Your task to perform on an android device: Set the phone to "Do not disturb". Image 0: 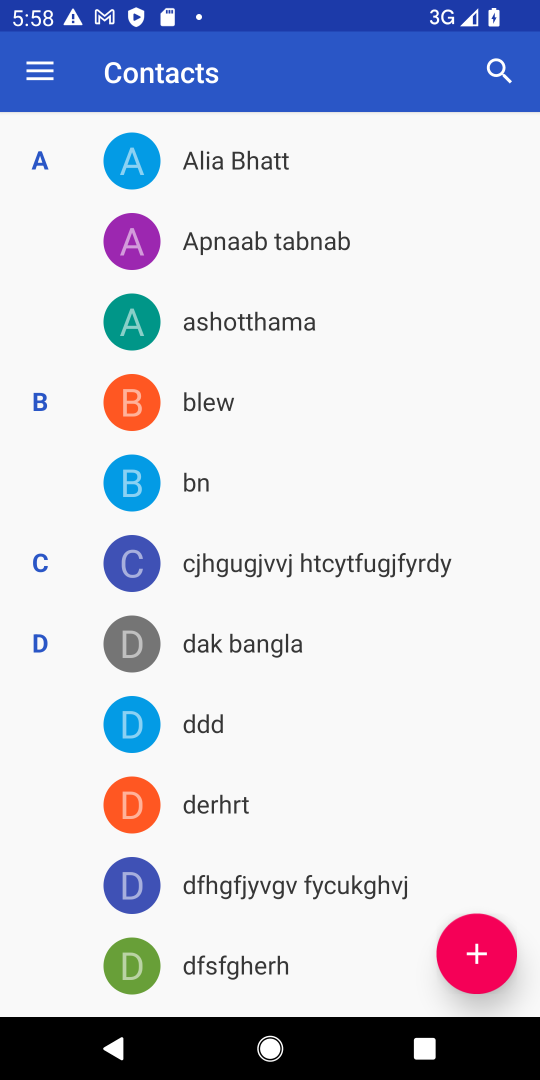
Step 0: press home button
Your task to perform on an android device: Set the phone to "Do not disturb". Image 1: 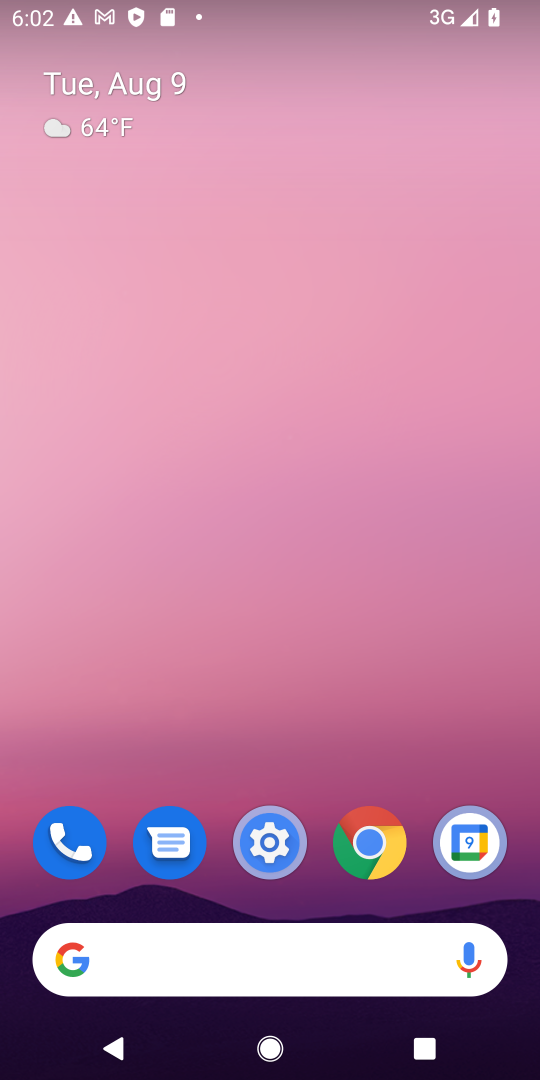
Step 1: drag from (371, 750) to (486, 7)
Your task to perform on an android device: Set the phone to "Do not disturb". Image 2: 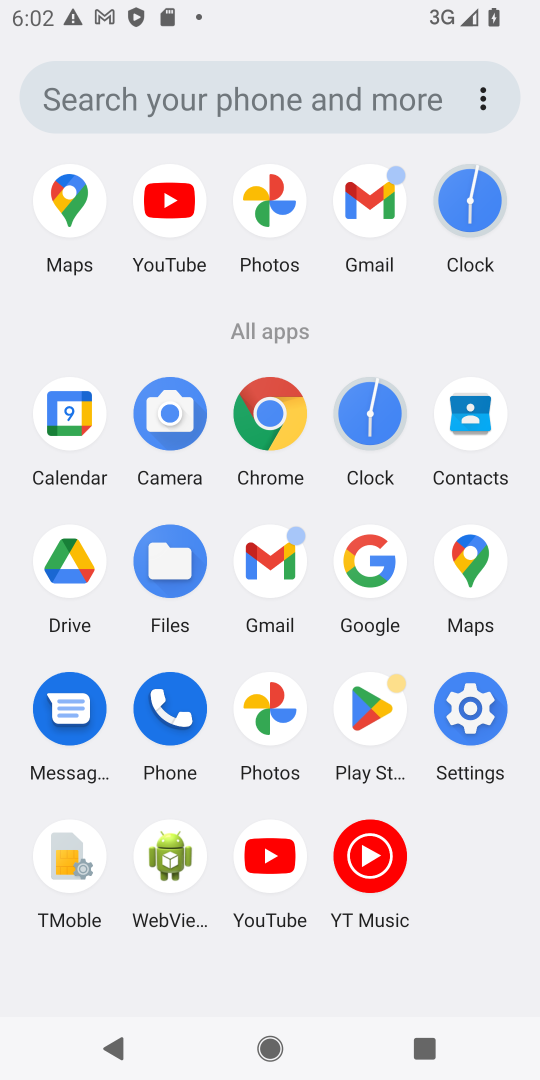
Step 2: click (472, 696)
Your task to perform on an android device: Set the phone to "Do not disturb". Image 3: 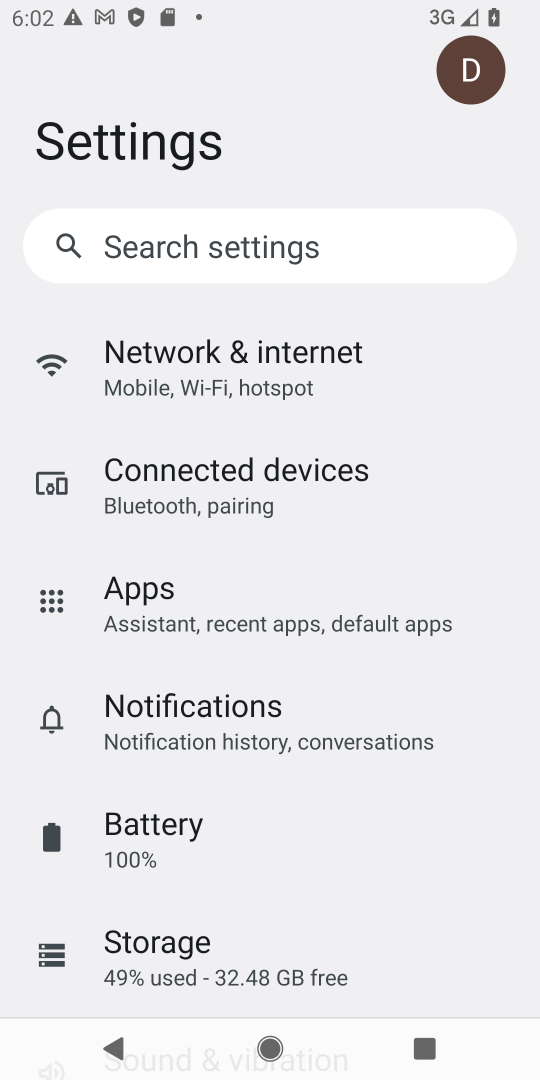
Step 3: drag from (238, 865) to (319, 274)
Your task to perform on an android device: Set the phone to "Do not disturb". Image 4: 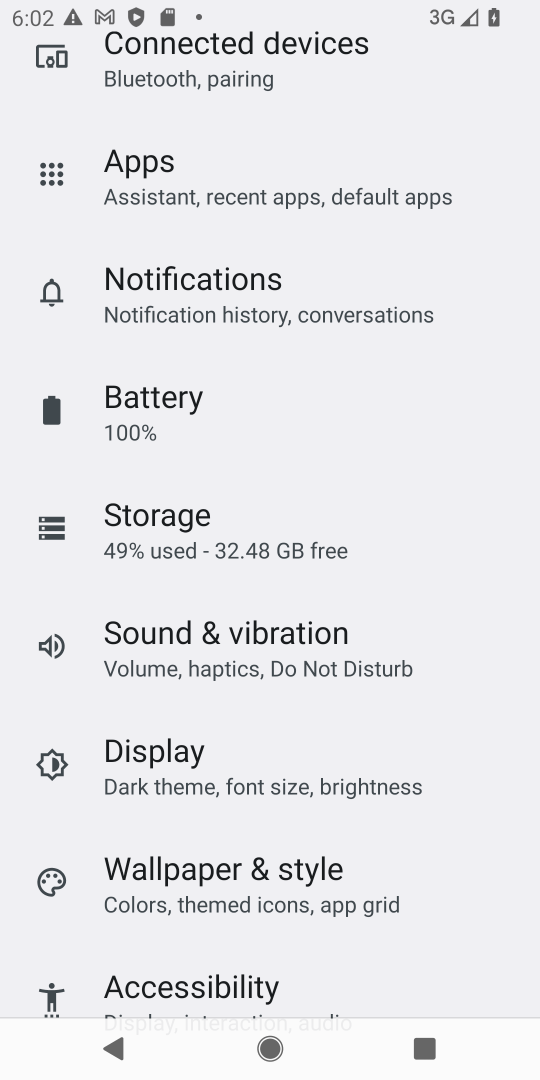
Step 4: click (159, 625)
Your task to perform on an android device: Set the phone to "Do not disturb". Image 5: 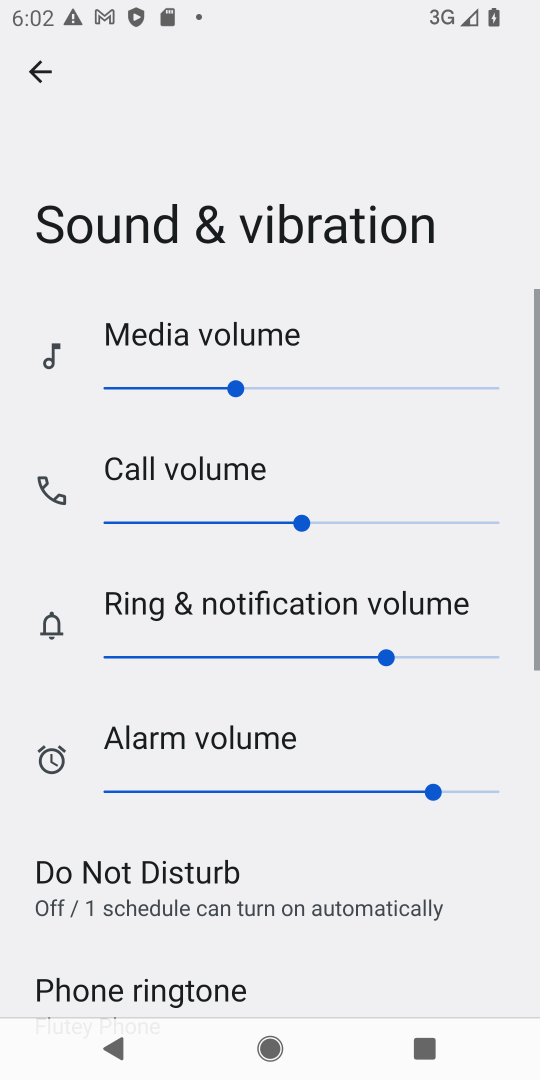
Step 5: drag from (216, 769) to (275, 165)
Your task to perform on an android device: Set the phone to "Do not disturb". Image 6: 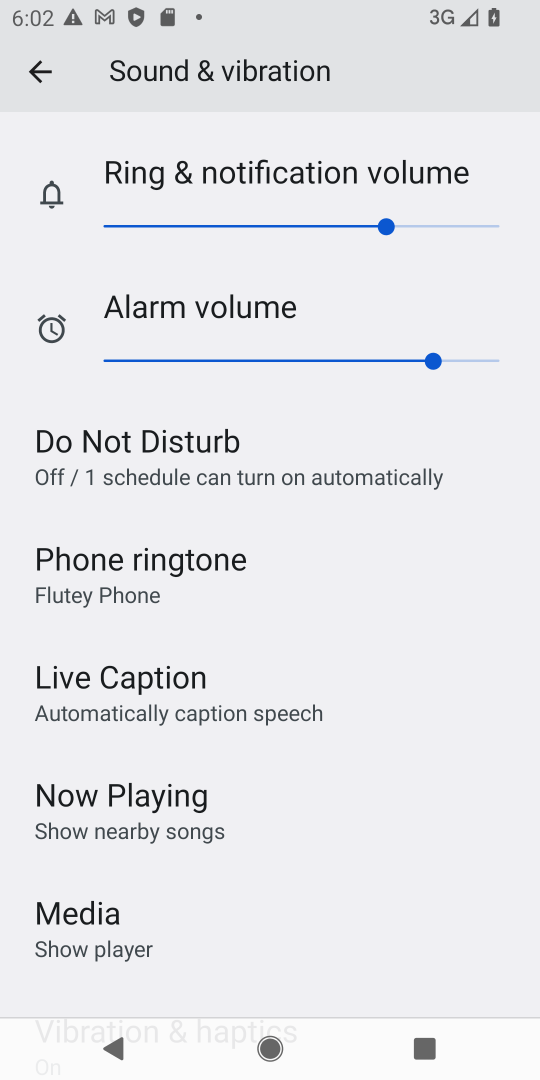
Step 6: drag from (168, 940) to (272, 349)
Your task to perform on an android device: Set the phone to "Do not disturb". Image 7: 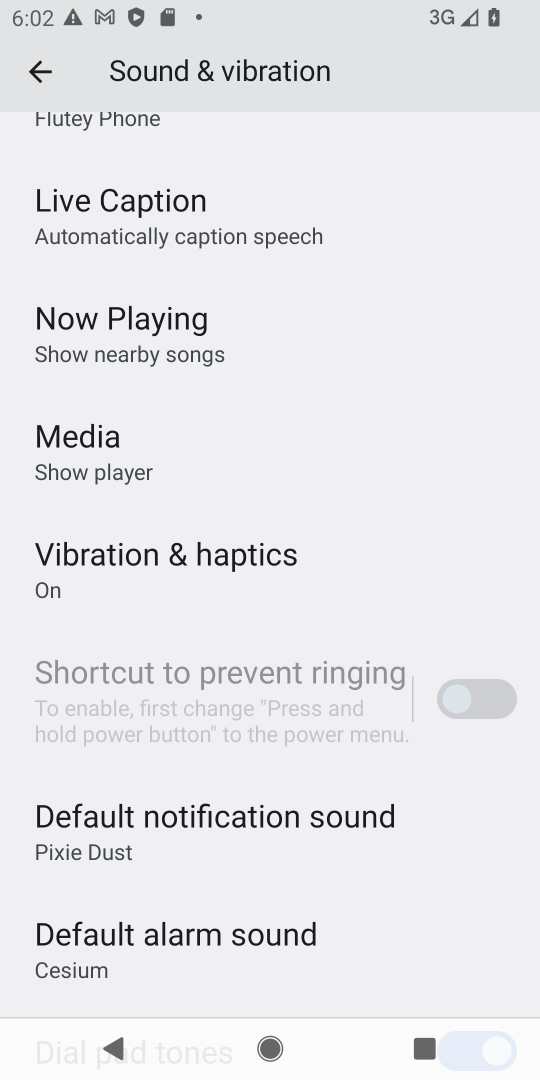
Step 7: drag from (225, 932) to (270, 191)
Your task to perform on an android device: Set the phone to "Do not disturb". Image 8: 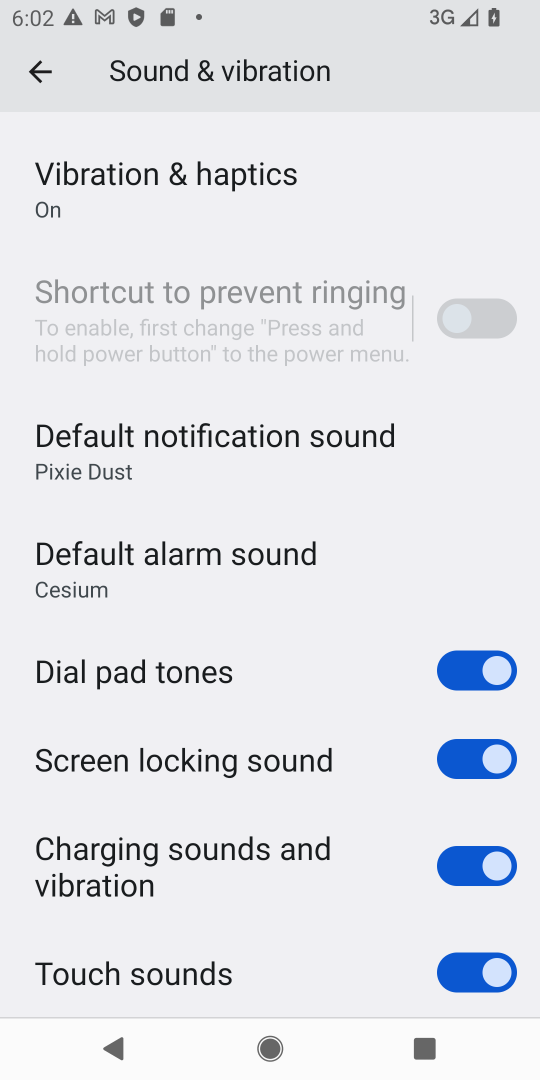
Step 8: drag from (257, 552) to (307, 1012)
Your task to perform on an android device: Set the phone to "Do not disturb". Image 9: 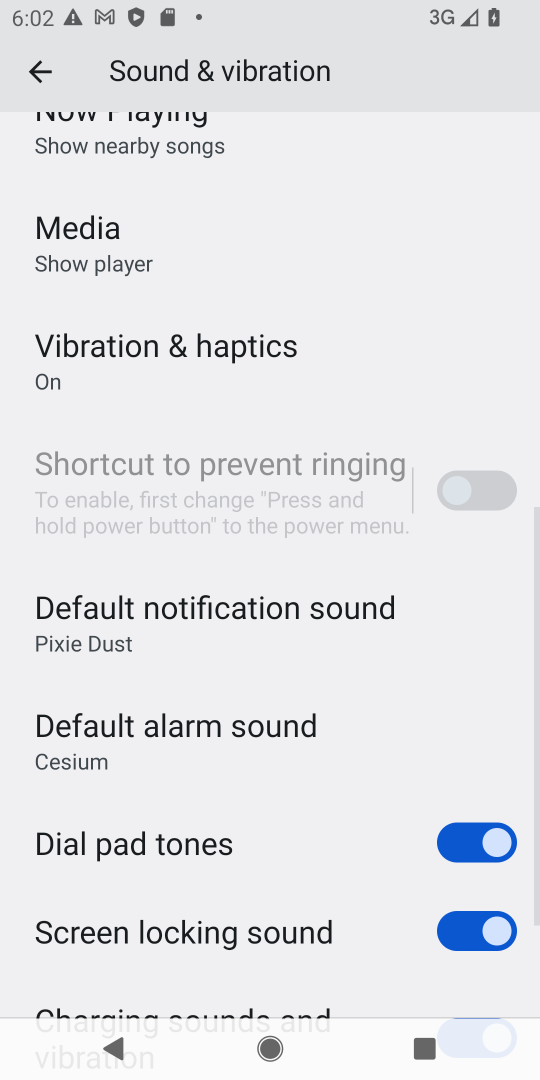
Step 9: drag from (288, 289) to (347, 1078)
Your task to perform on an android device: Set the phone to "Do not disturb". Image 10: 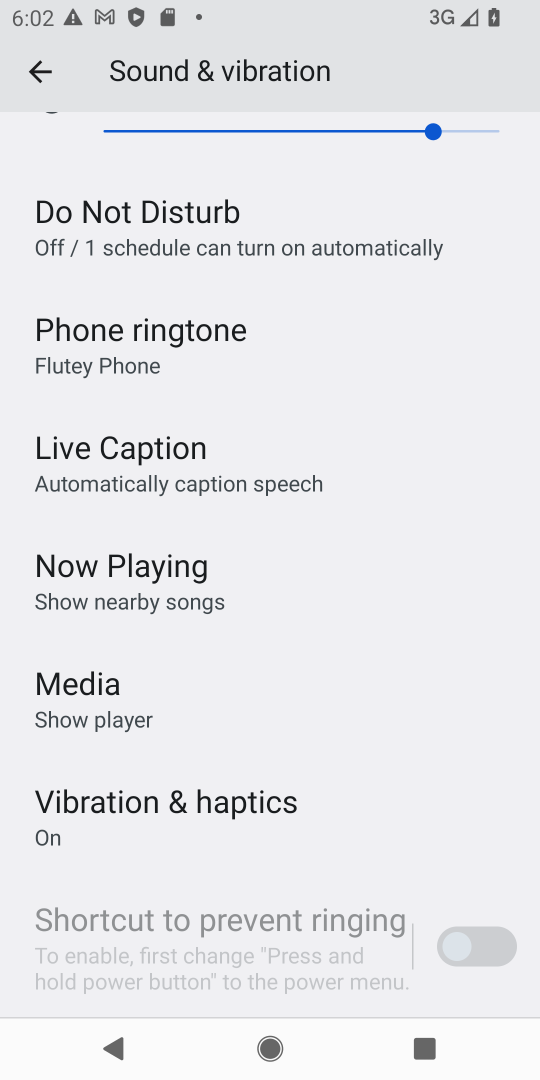
Step 10: drag from (282, 380) to (264, 764)
Your task to perform on an android device: Set the phone to "Do not disturb". Image 11: 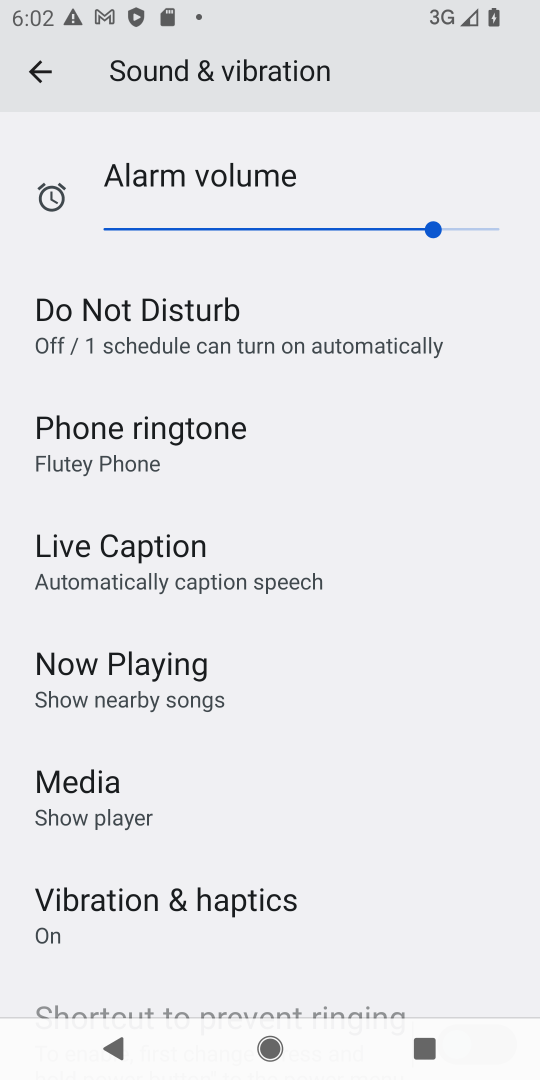
Step 11: click (191, 328)
Your task to perform on an android device: Set the phone to "Do not disturb". Image 12: 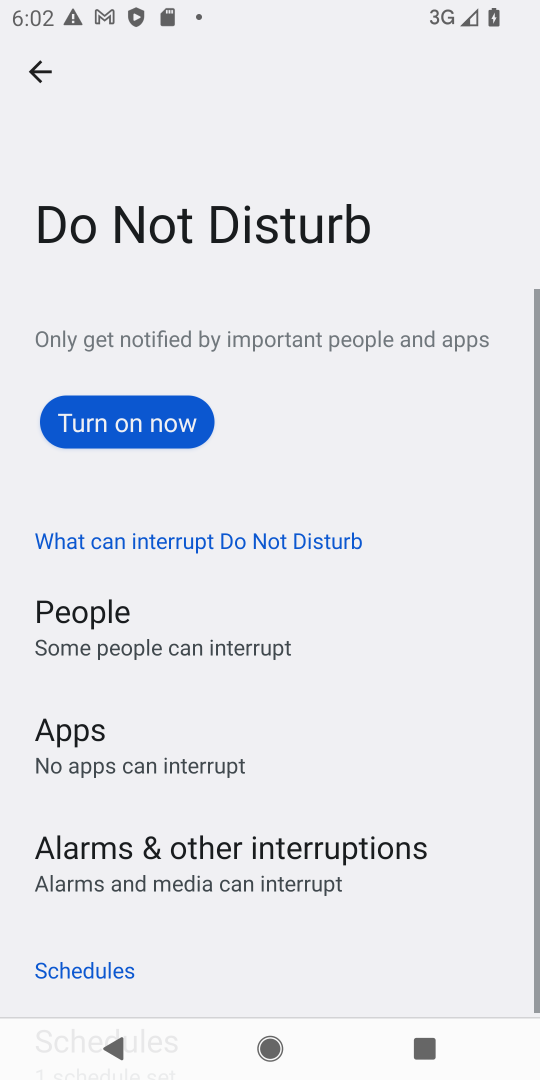
Step 12: click (113, 444)
Your task to perform on an android device: Set the phone to "Do not disturb". Image 13: 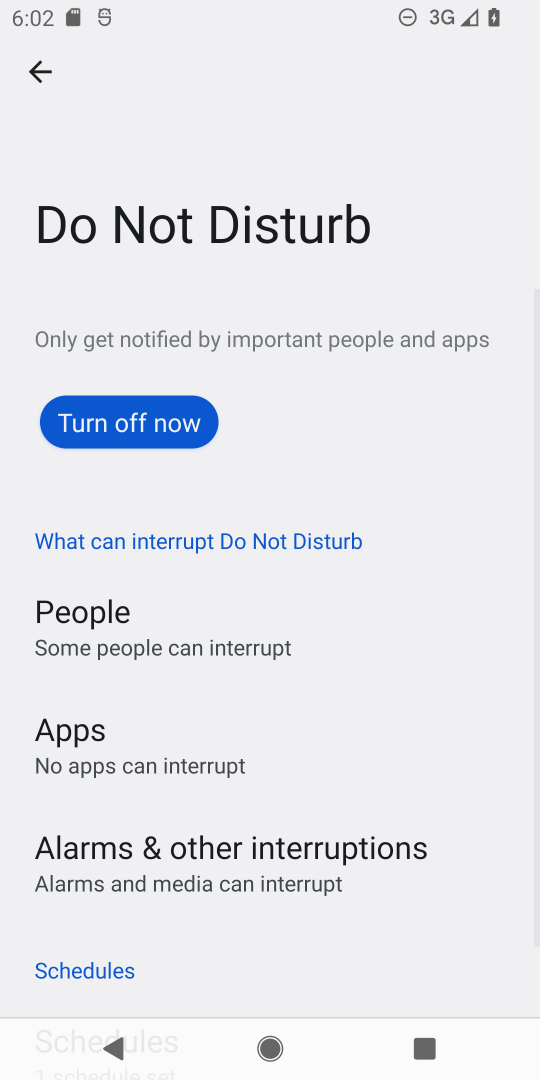
Step 13: task complete